Your task to perform on an android device: change the clock display to analog Image 0: 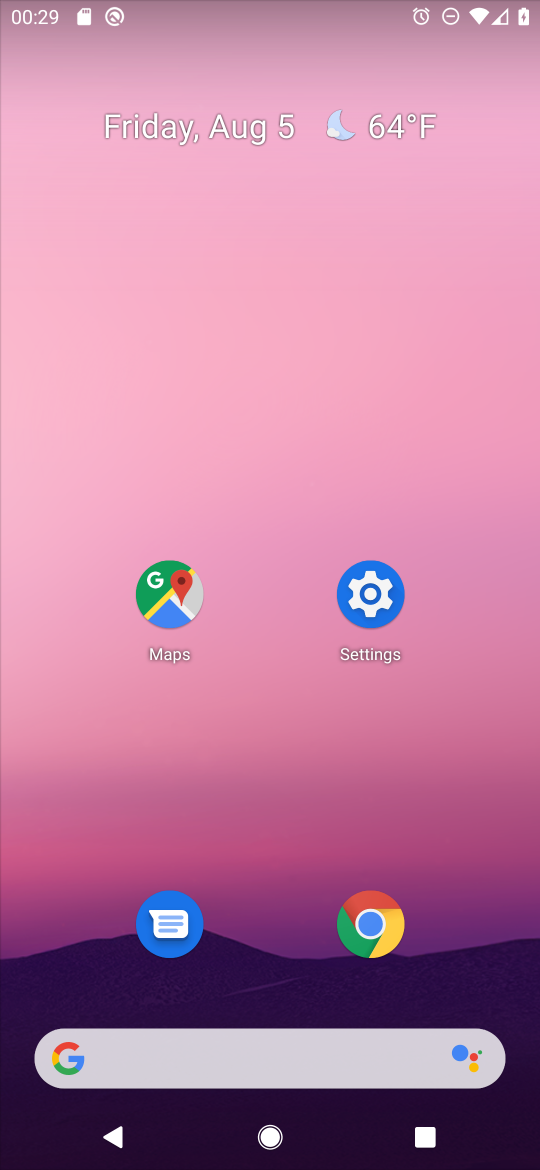
Step 0: press home button
Your task to perform on an android device: change the clock display to analog Image 1: 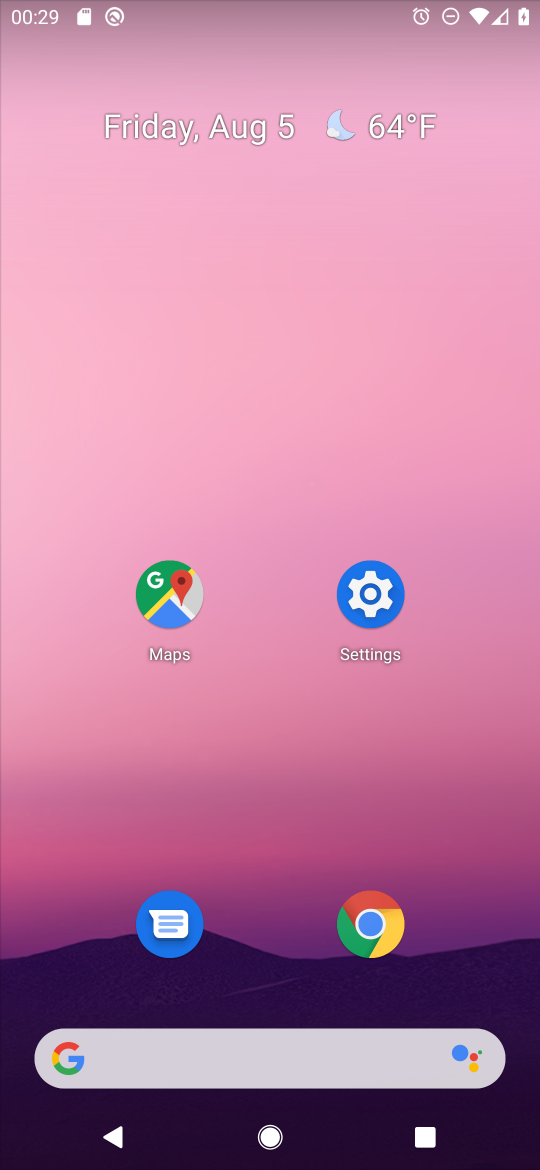
Step 1: drag from (243, 1050) to (469, 35)
Your task to perform on an android device: change the clock display to analog Image 2: 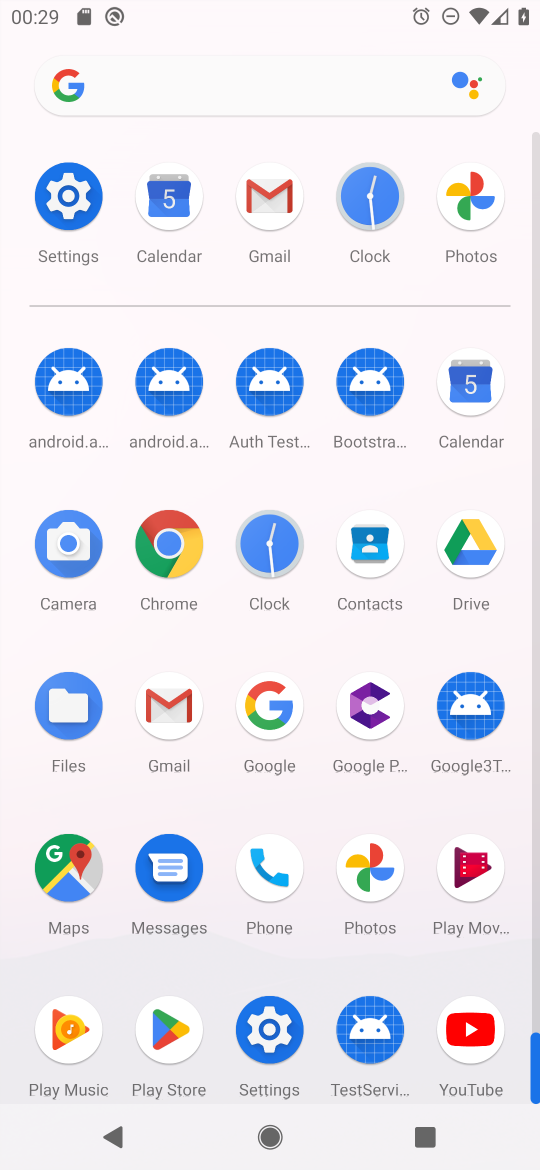
Step 2: click (379, 196)
Your task to perform on an android device: change the clock display to analog Image 3: 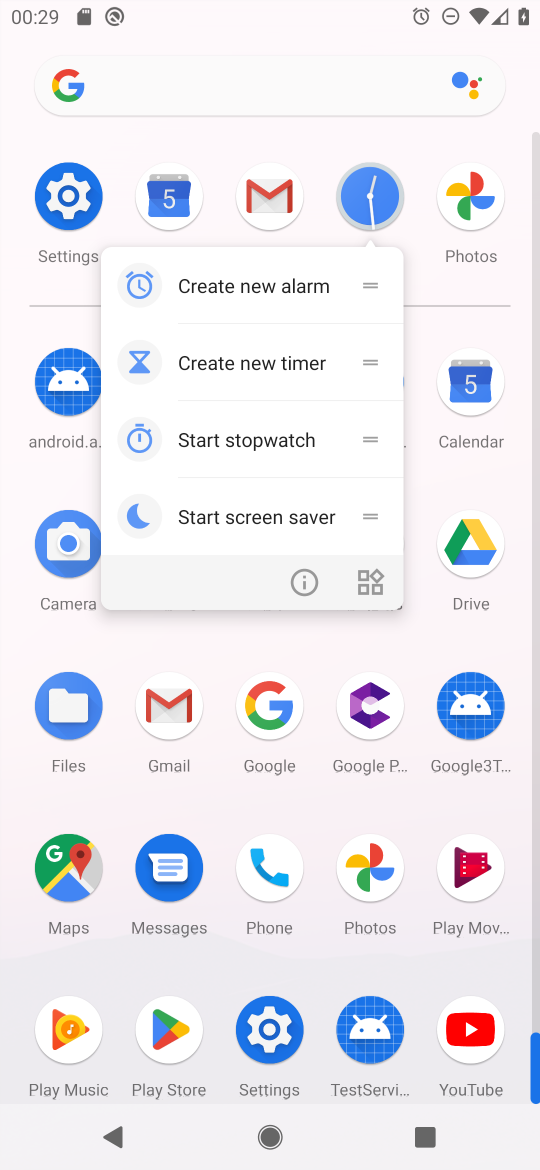
Step 3: click (376, 196)
Your task to perform on an android device: change the clock display to analog Image 4: 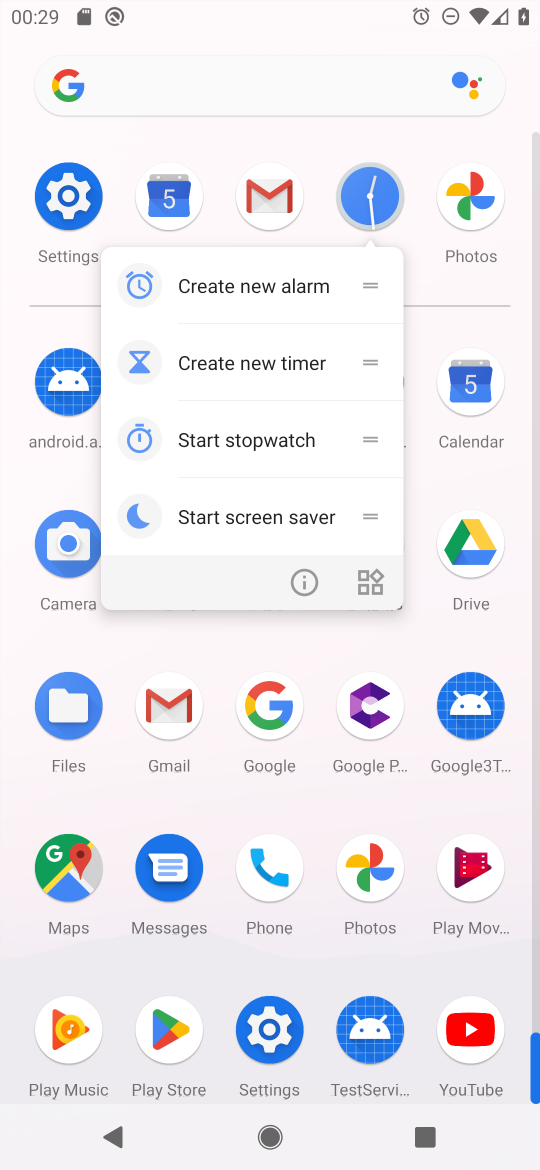
Step 4: click (376, 196)
Your task to perform on an android device: change the clock display to analog Image 5: 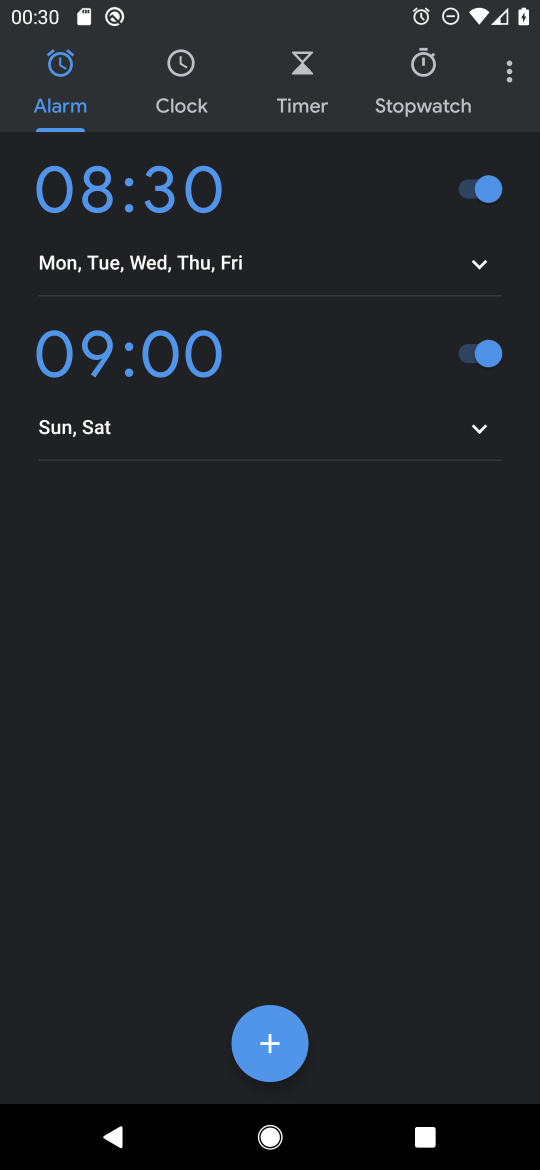
Step 5: click (497, 72)
Your task to perform on an android device: change the clock display to analog Image 6: 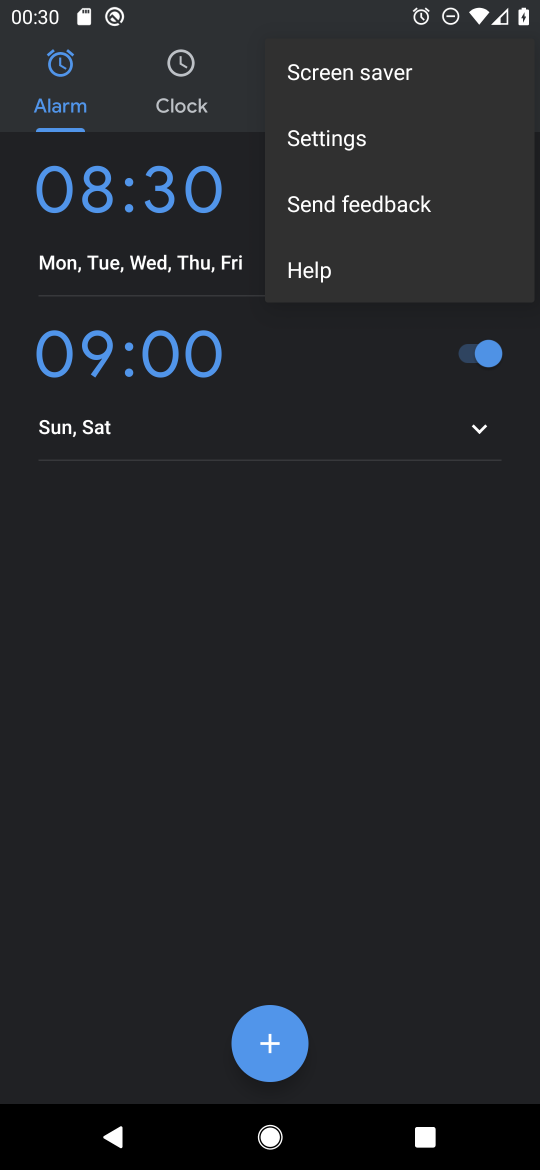
Step 6: click (339, 129)
Your task to perform on an android device: change the clock display to analog Image 7: 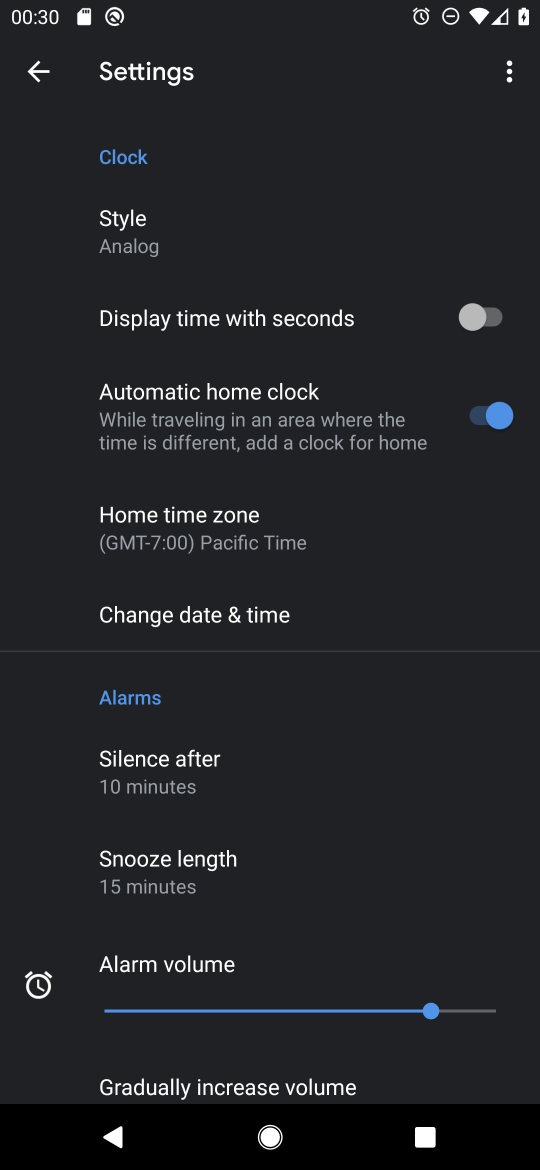
Step 7: task complete